Your task to perform on an android device: read, delete, or share a saved page in the chrome app Image 0: 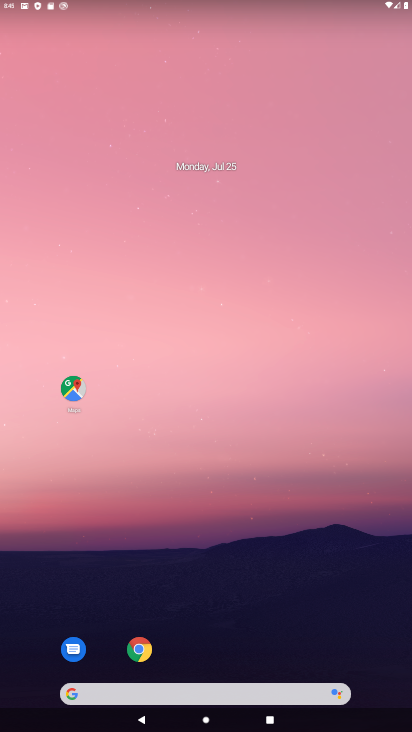
Step 0: click (138, 647)
Your task to perform on an android device: read, delete, or share a saved page in the chrome app Image 1: 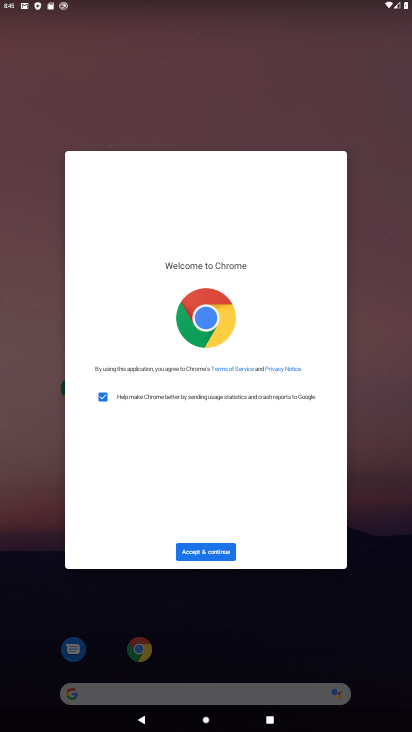
Step 1: click (196, 556)
Your task to perform on an android device: read, delete, or share a saved page in the chrome app Image 2: 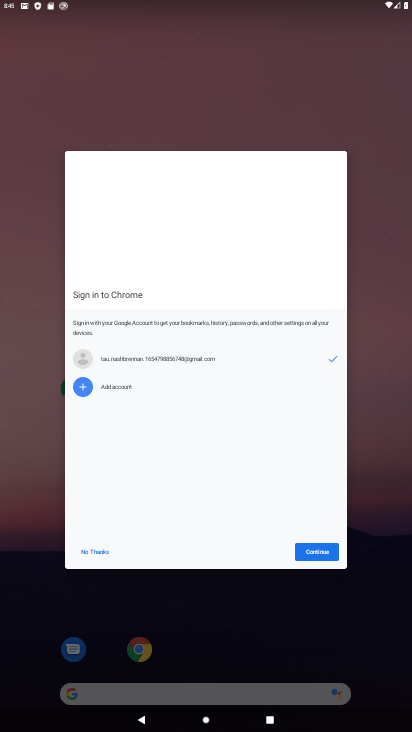
Step 2: click (318, 550)
Your task to perform on an android device: read, delete, or share a saved page in the chrome app Image 3: 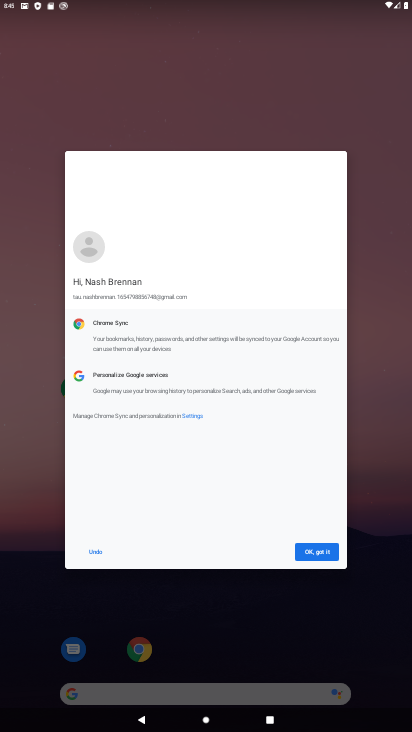
Step 3: click (318, 550)
Your task to perform on an android device: read, delete, or share a saved page in the chrome app Image 4: 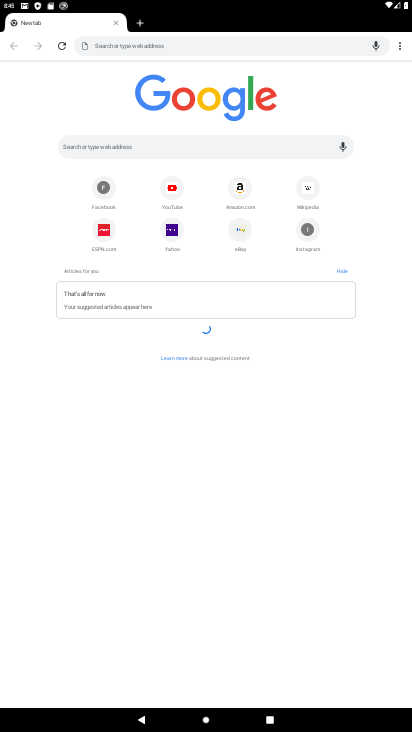
Step 4: task complete